Your task to perform on an android device: Open Youtube and go to "Your channel" Image 0: 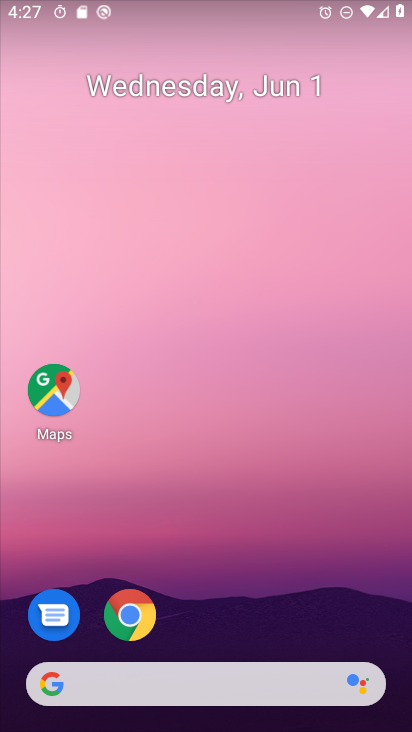
Step 0: drag from (281, 604) to (282, 139)
Your task to perform on an android device: Open Youtube and go to "Your channel" Image 1: 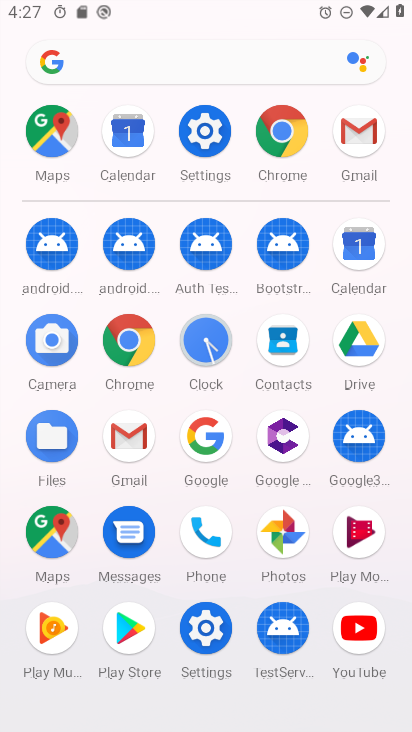
Step 1: click (371, 633)
Your task to perform on an android device: Open Youtube and go to "Your channel" Image 2: 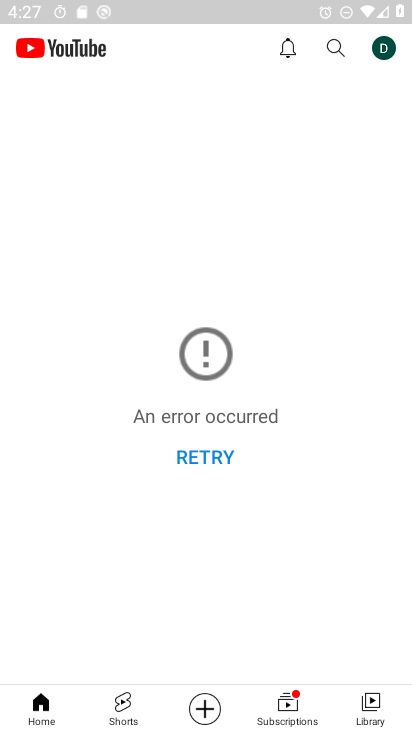
Step 2: click (387, 60)
Your task to perform on an android device: Open Youtube and go to "Your channel" Image 3: 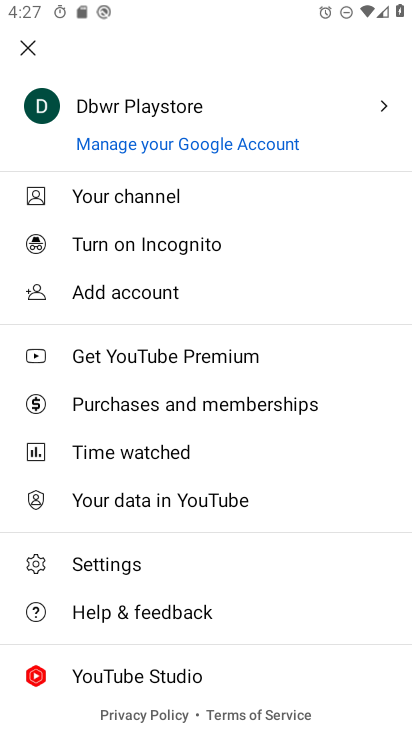
Step 3: click (148, 195)
Your task to perform on an android device: Open Youtube and go to "Your channel" Image 4: 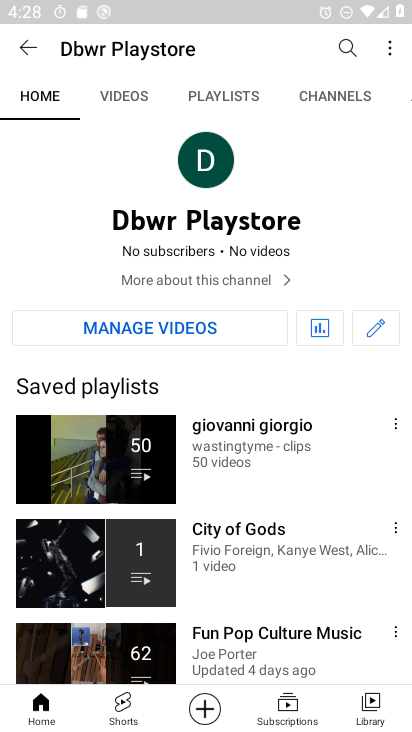
Step 4: task complete